Your task to perform on an android device: set default search engine in the chrome app Image 0: 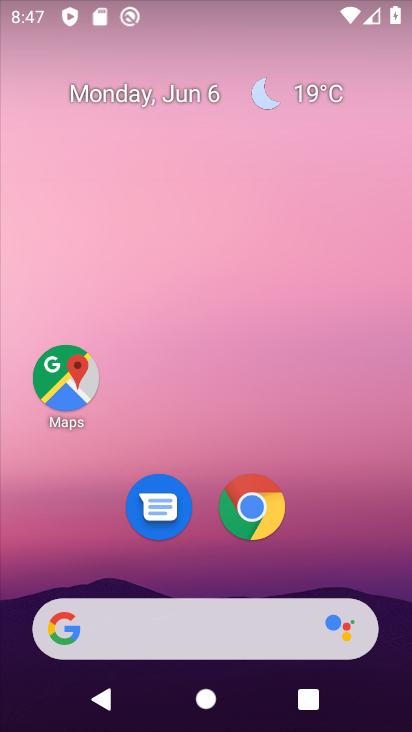
Step 0: click (246, 503)
Your task to perform on an android device: set default search engine in the chrome app Image 1: 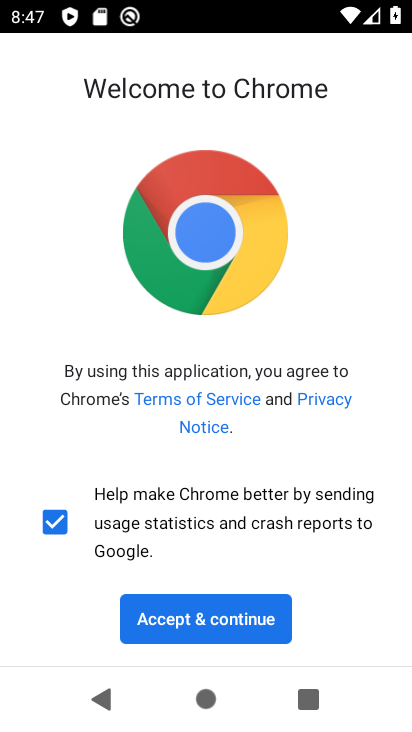
Step 1: click (200, 608)
Your task to perform on an android device: set default search engine in the chrome app Image 2: 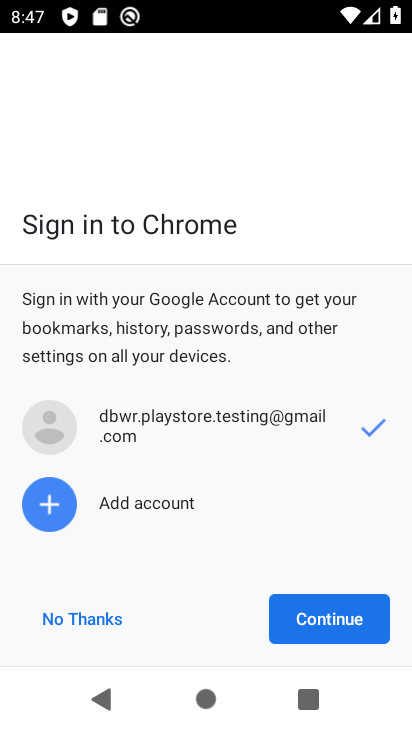
Step 2: click (290, 609)
Your task to perform on an android device: set default search engine in the chrome app Image 3: 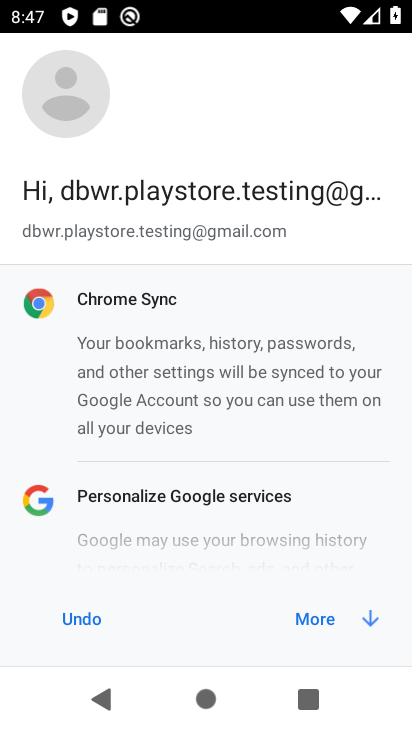
Step 3: click (304, 614)
Your task to perform on an android device: set default search engine in the chrome app Image 4: 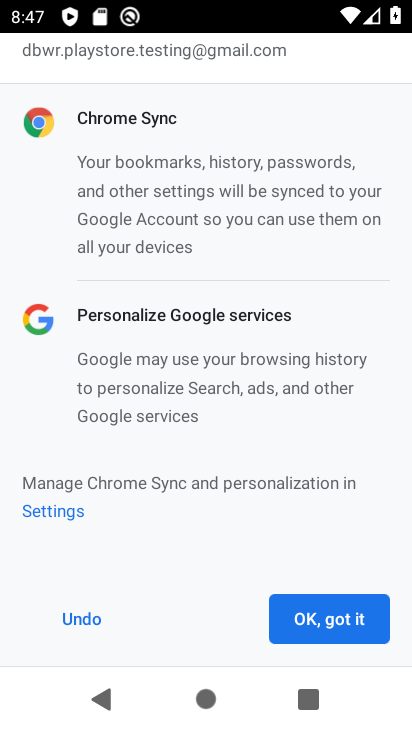
Step 4: click (308, 620)
Your task to perform on an android device: set default search engine in the chrome app Image 5: 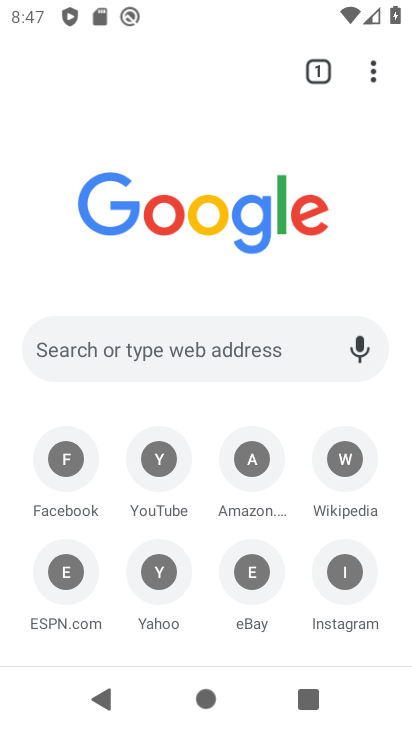
Step 5: click (375, 70)
Your task to perform on an android device: set default search engine in the chrome app Image 6: 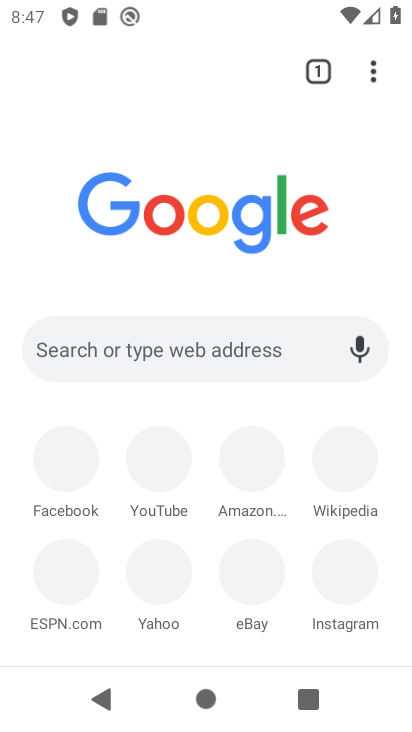
Step 6: click (367, 61)
Your task to perform on an android device: set default search engine in the chrome app Image 7: 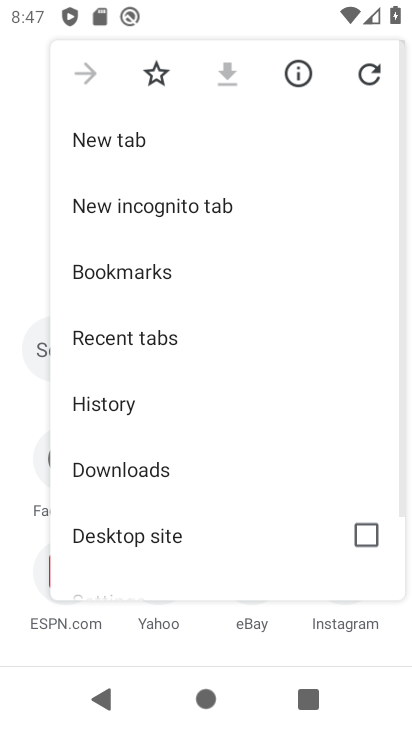
Step 7: drag from (166, 517) to (213, 189)
Your task to perform on an android device: set default search engine in the chrome app Image 8: 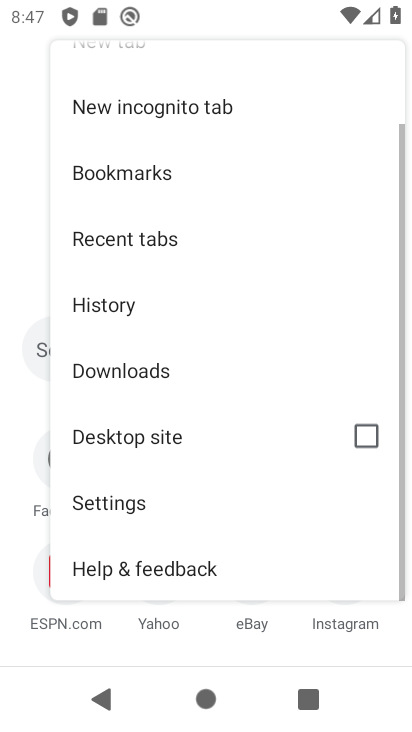
Step 8: click (153, 490)
Your task to perform on an android device: set default search engine in the chrome app Image 9: 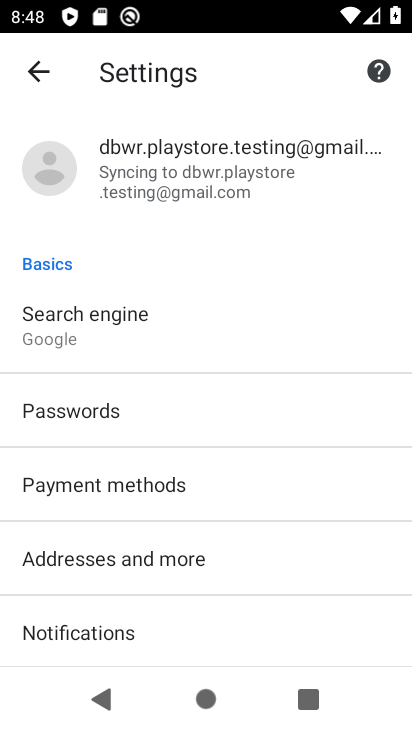
Step 9: click (105, 315)
Your task to perform on an android device: set default search engine in the chrome app Image 10: 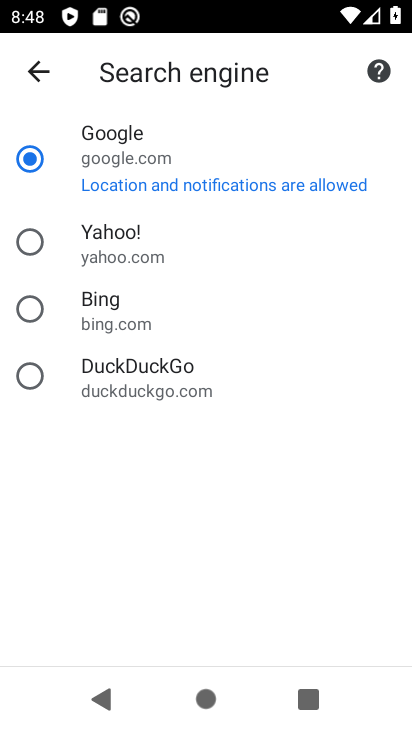
Step 10: click (104, 305)
Your task to perform on an android device: set default search engine in the chrome app Image 11: 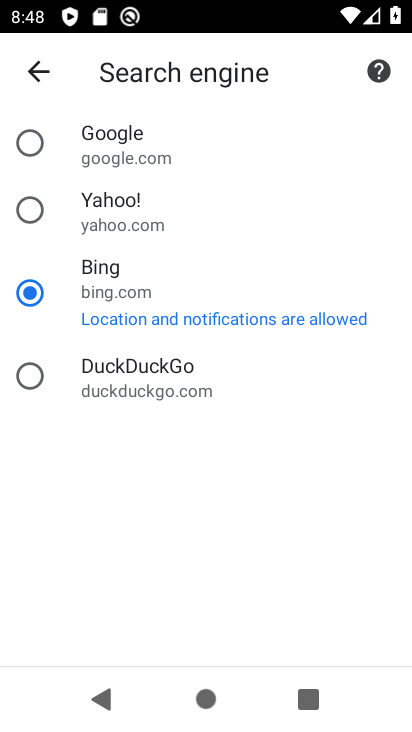
Step 11: task complete